Your task to perform on an android device: What's the weather? Image 0: 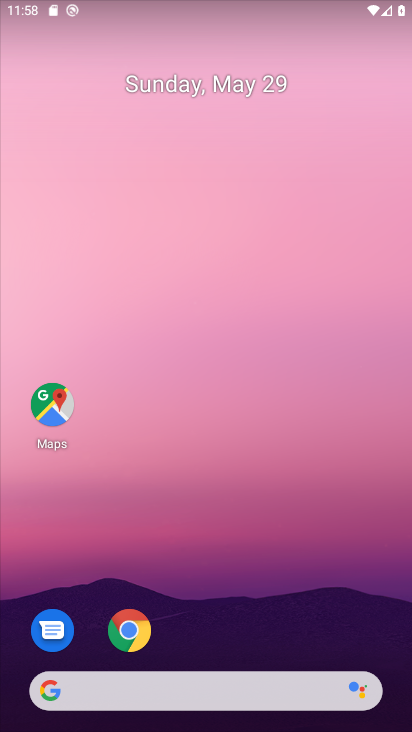
Step 0: click (379, 386)
Your task to perform on an android device: What's the weather? Image 1: 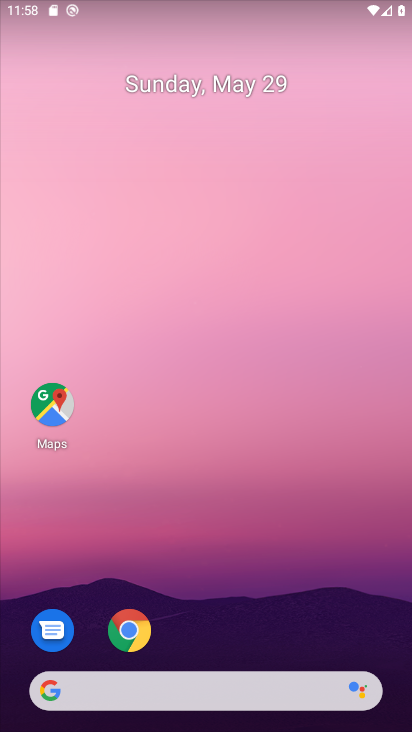
Step 1: click (359, 381)
Your task to perform on an android device: What's the weather? Image 2: 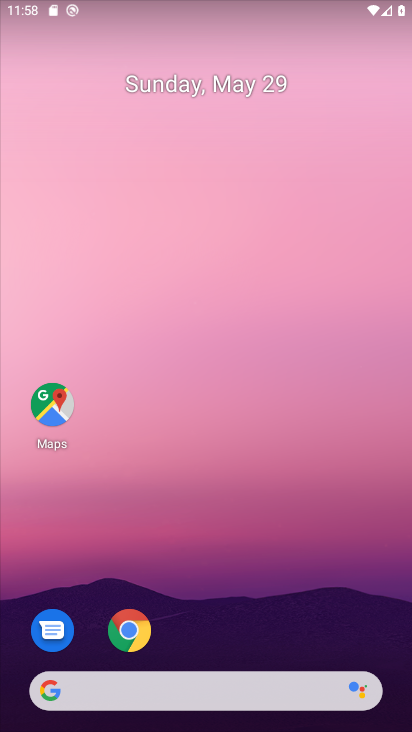
Step 2: click (376, 377)
Your task to perform on an android device: What's the weather? Image 3: 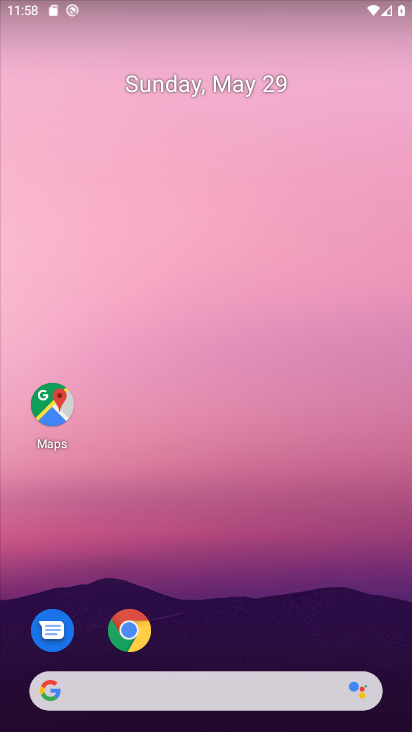
Step 3: task complete